Your task to perform on an android device: Go to eBay Image 0: 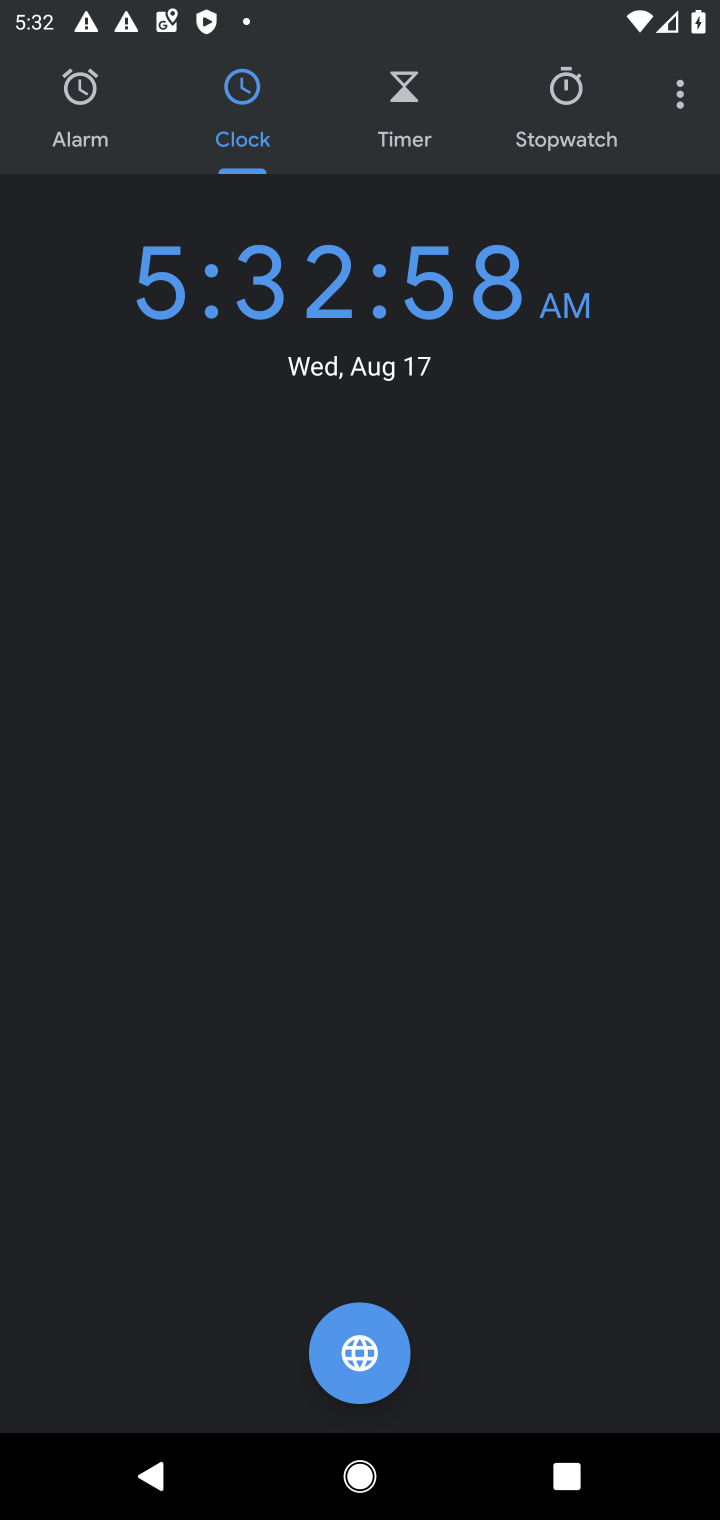
Step 0: press home button
Your task to perform on an android device: Go to eBay Image 1: 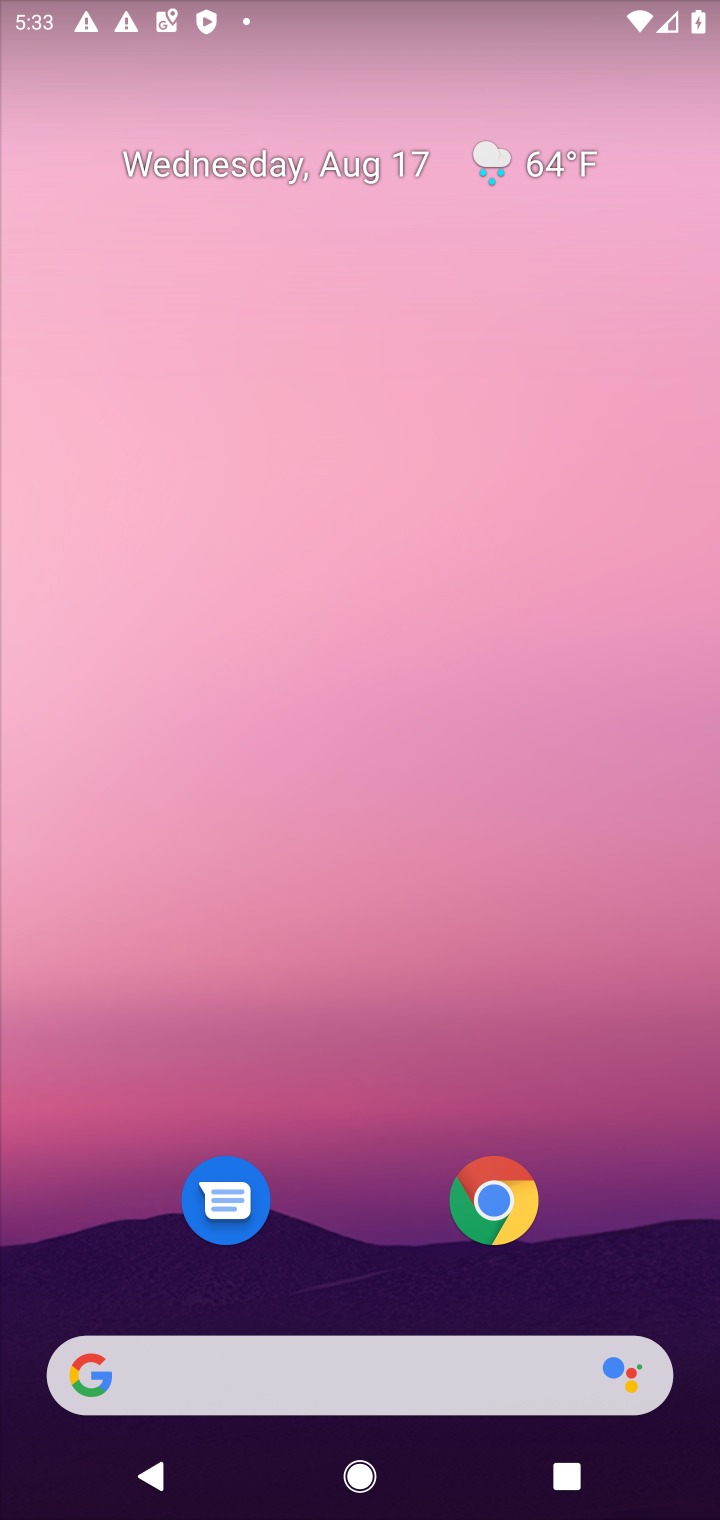
Step 1: click (497, 1191)
Your task to perform on an android device: Go to eBay Image 2: 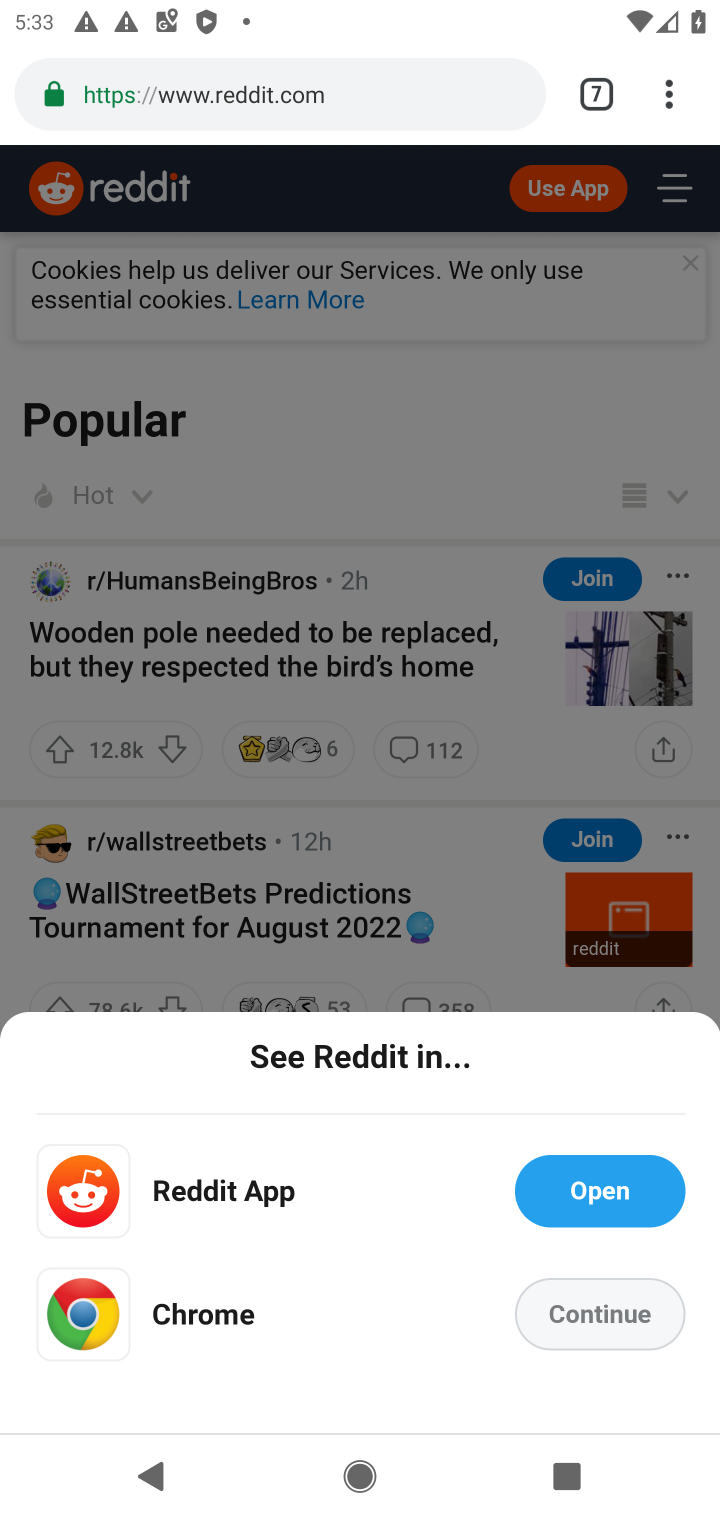
Step 2: click (672, 107)
Your task to perform on an android device: Go to eBay Image 3: 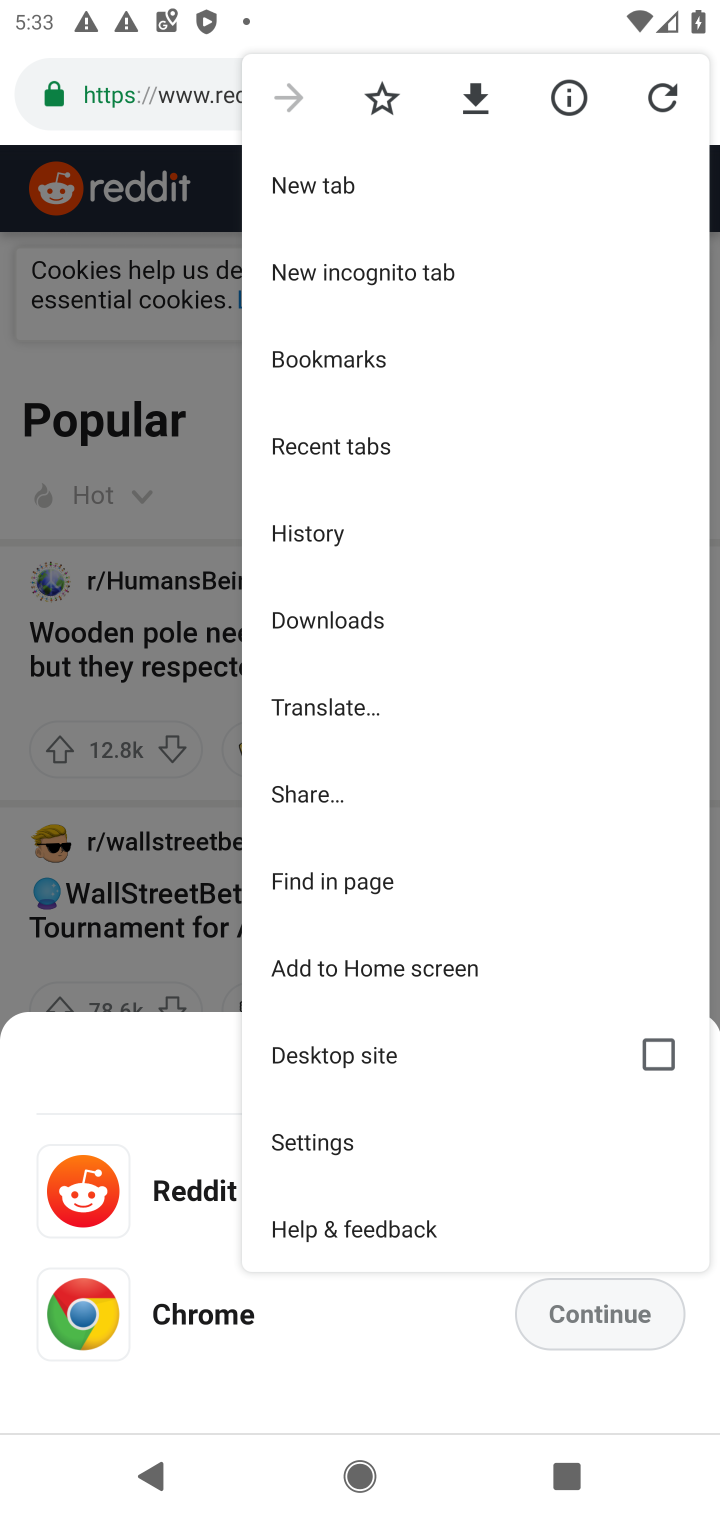
Step 3: click (317, 176)
Your task to perform on an android device: Go to eBay Image 4: 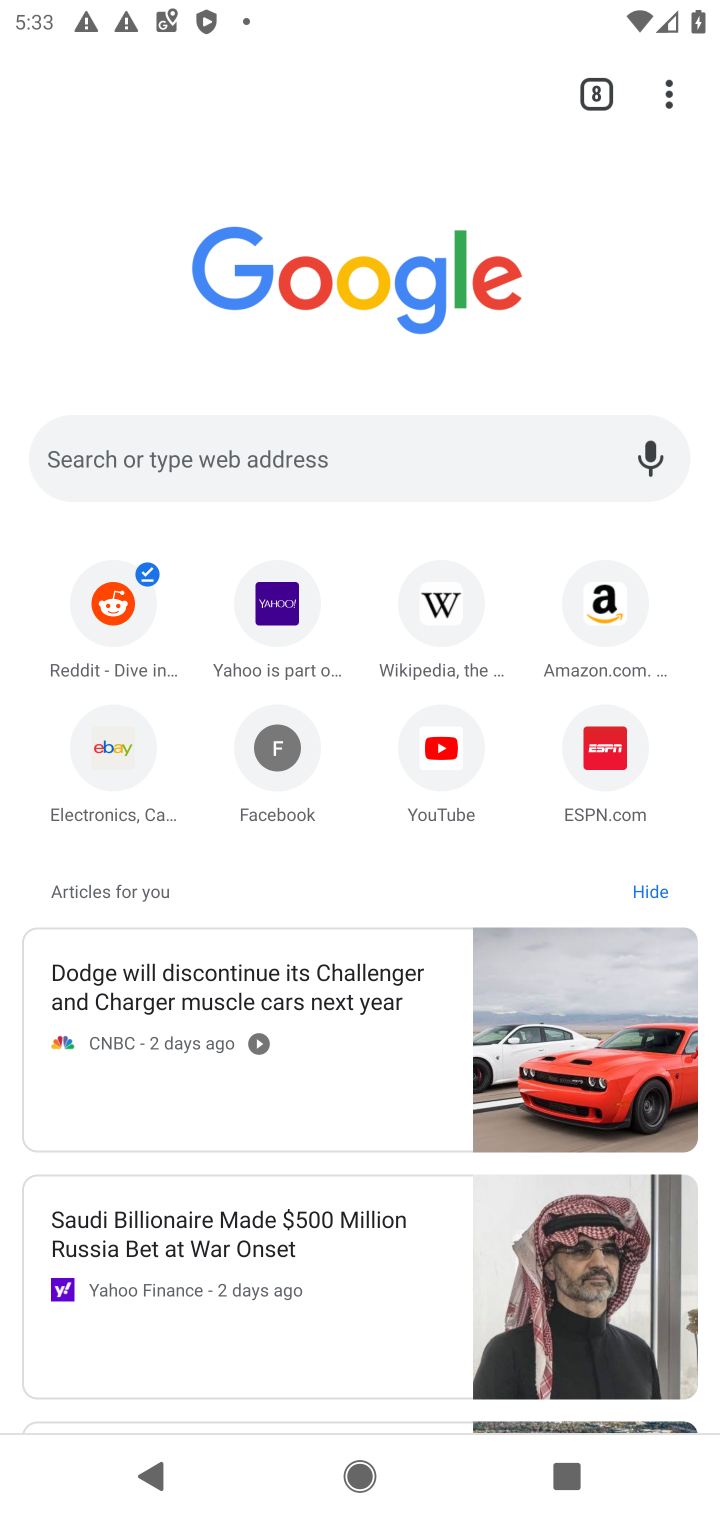
Step 4: click (364, 458)
Your task to perform on an android device: Go to eBay Image 5: 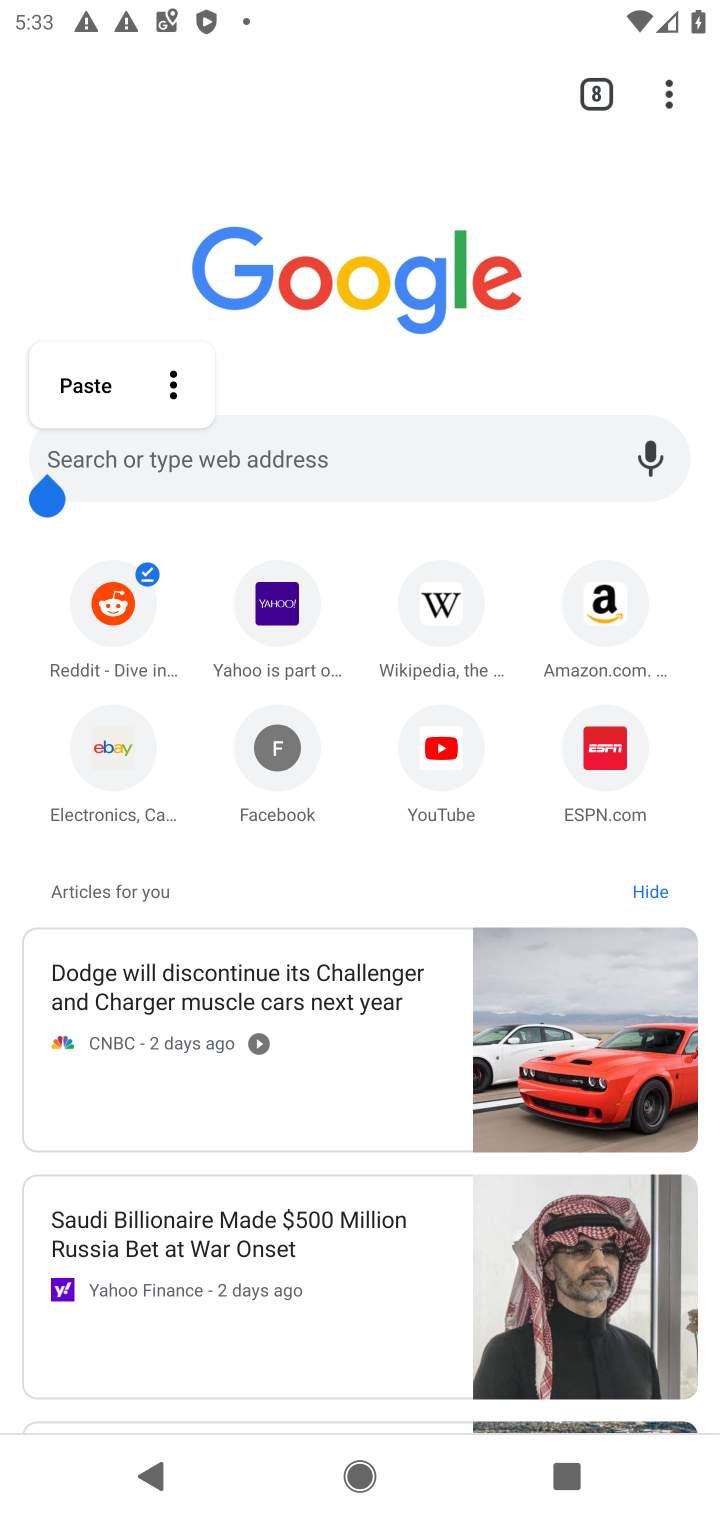
Step 5: click (254, 479)
Your task to perform on an android device: Go to eBay Image 6: 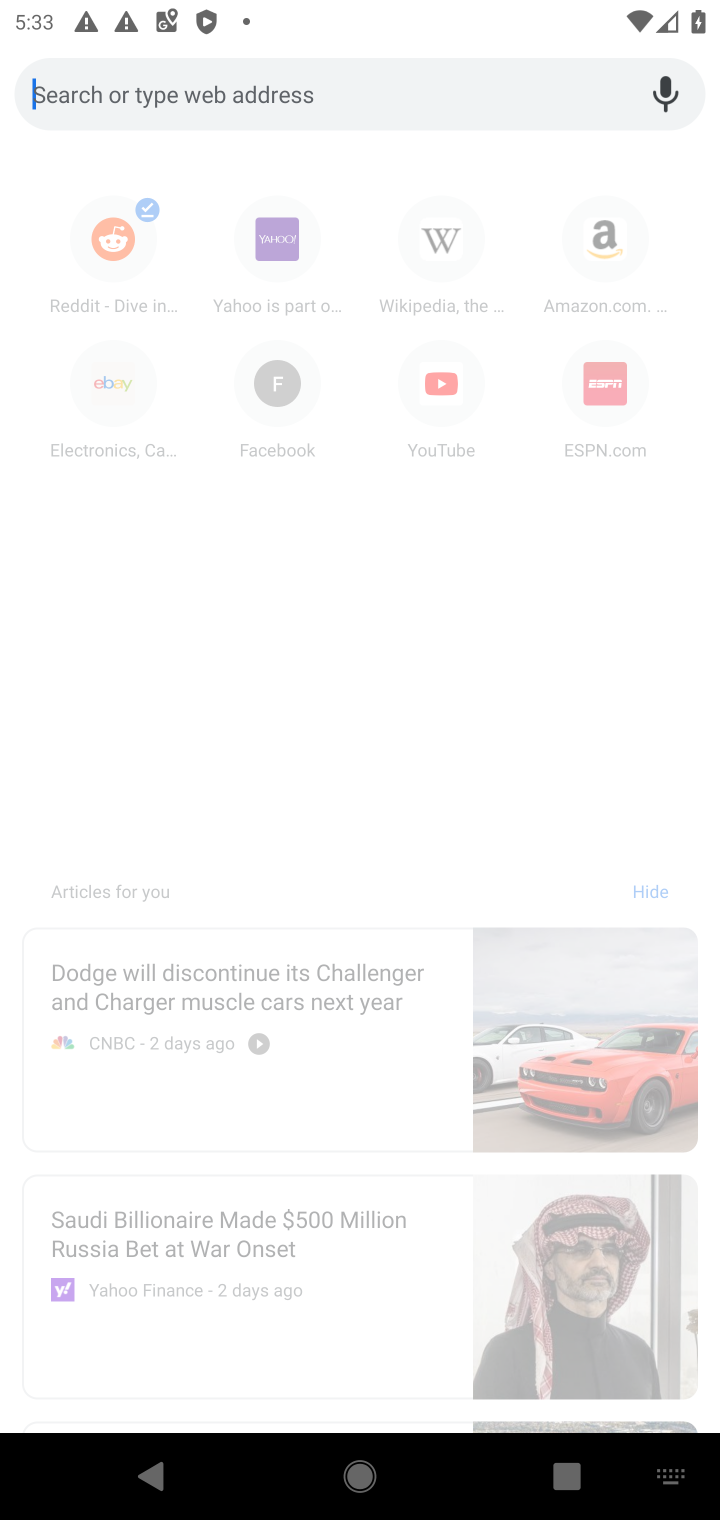
Step 6: type "eBay"
Your task to perform on an android device: Go to eBay Image 7: 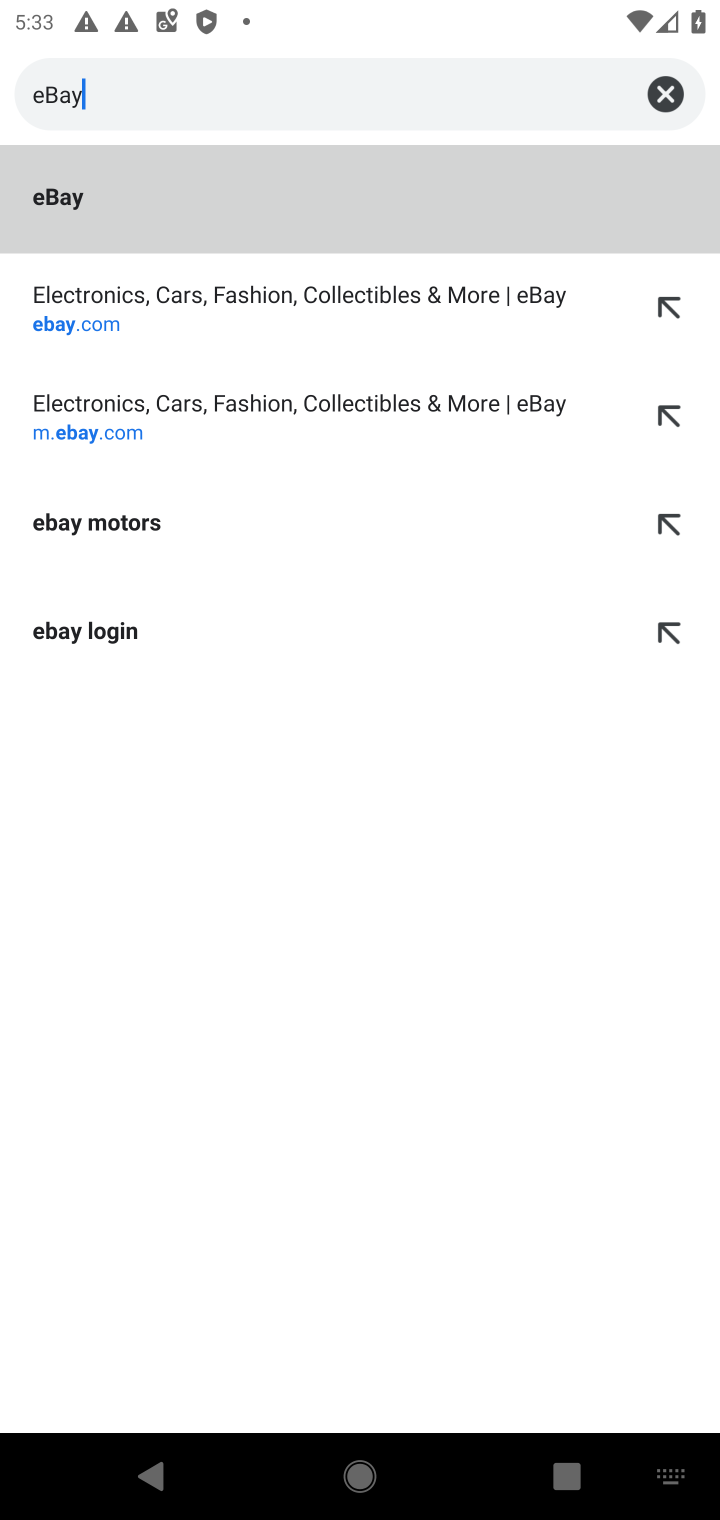
Step 7: click (57, 195)
Your task to perform on an android device: Go to eBay Image 8: 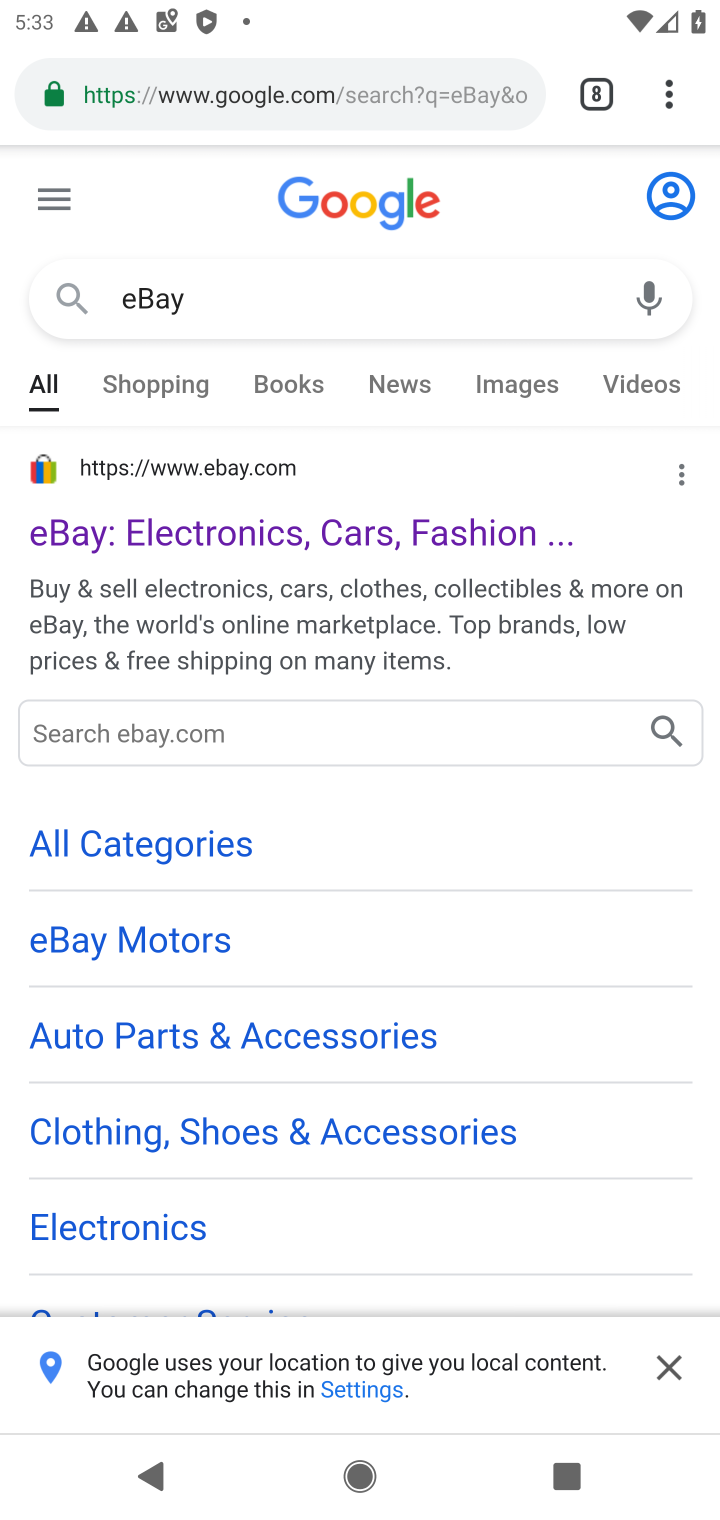
Step 8: click (153, 533)
Your task to perform on an android device: Go to eBay Image 9: 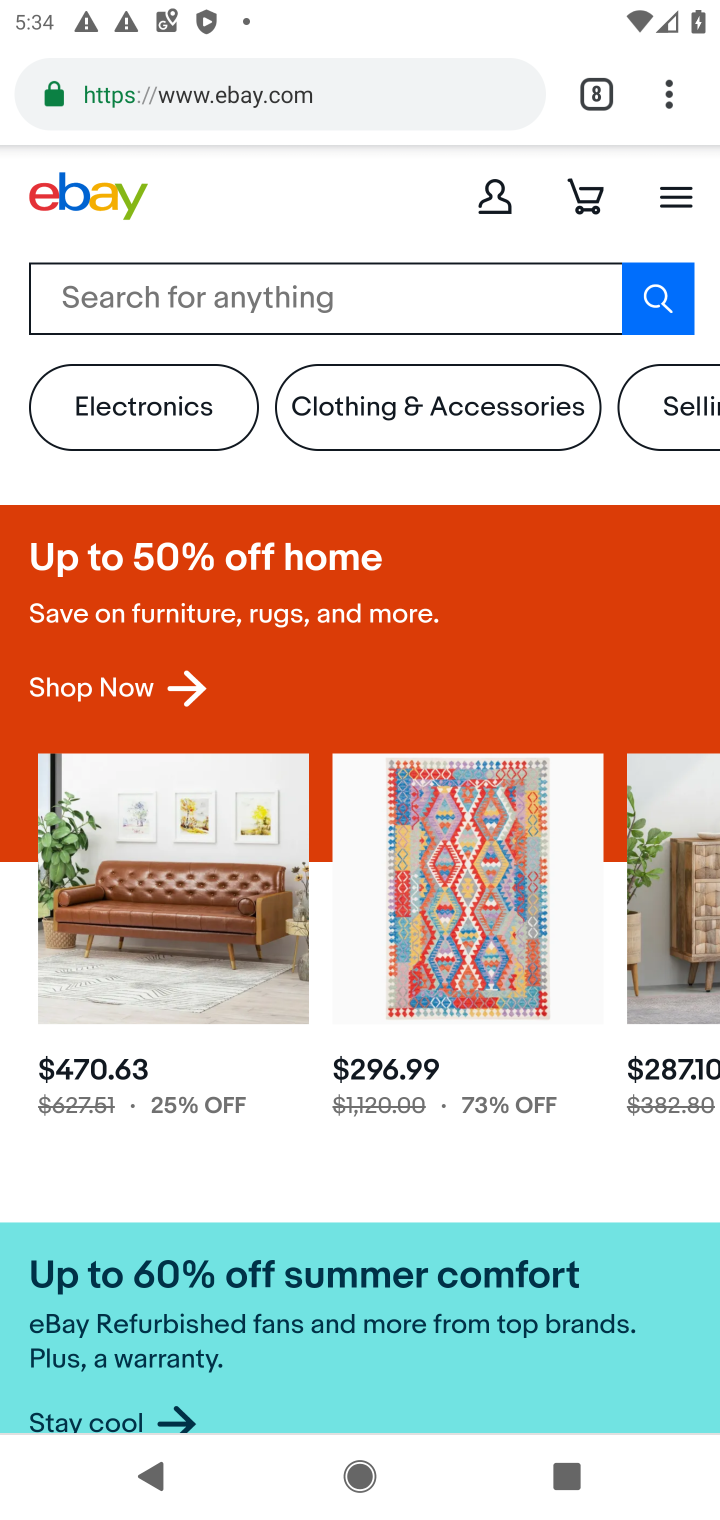
Step 9: task complete